Your task to perform on an android device: Open wifi settings Image 0: 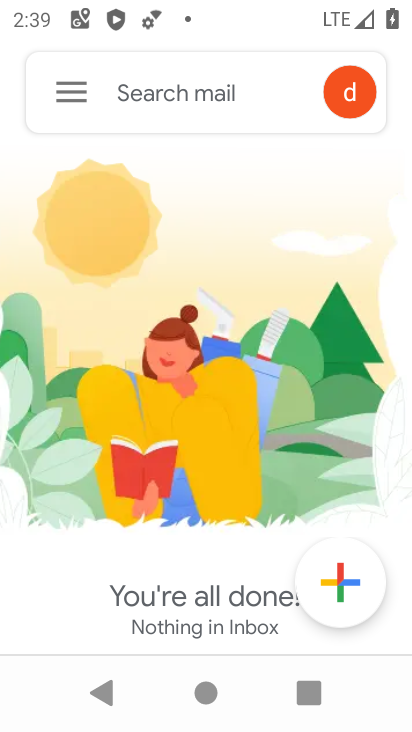
Step 0: press home button
Your task to perform on an android device: Open wifi settings Image 1: 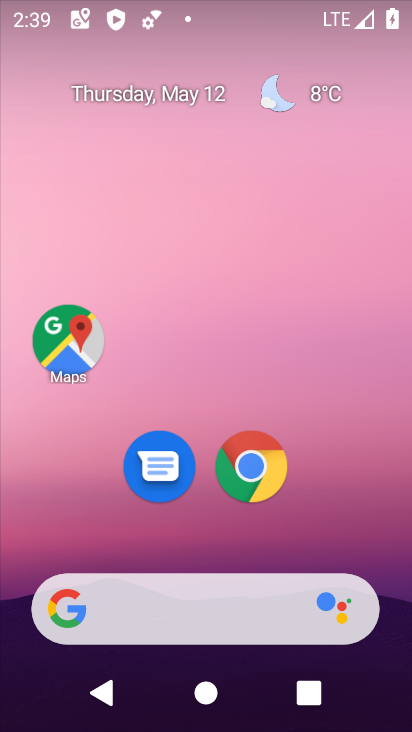
Step 1: drag from (306, 476) to (160, 109)
Your task to perform on an android device: Open wifi settings Image 2: 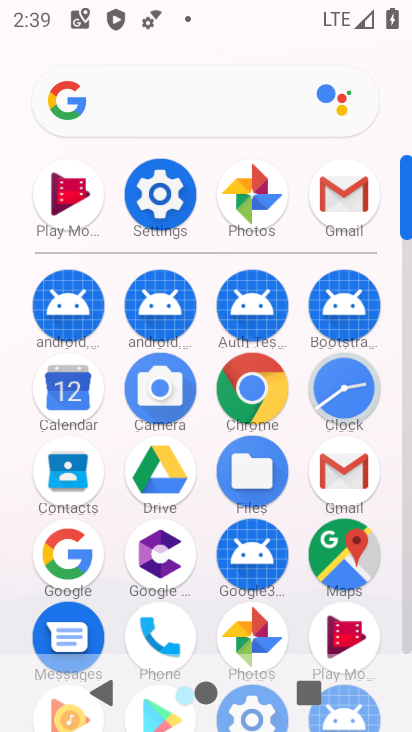
Step 2: click (154, 199)
Your task to perform on an android device: Open wifi settings Image 3: 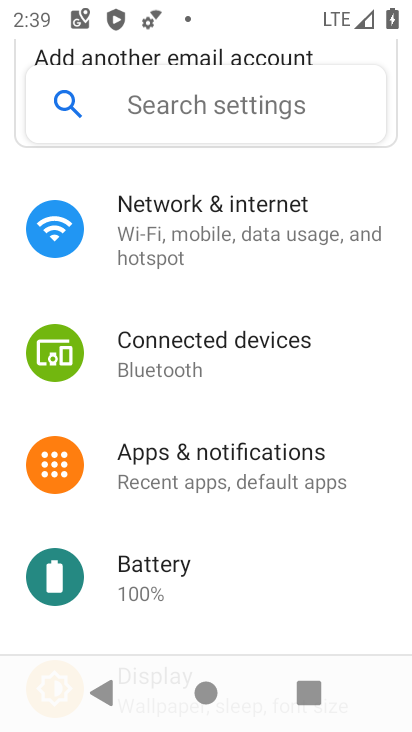
Step 3: click (151, 220)
Your task to perform on an android device: Open wifi settings Image 4: 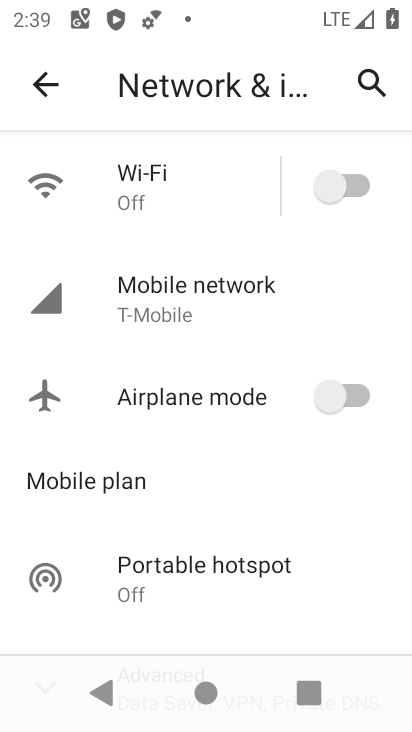
Step 4: click (142, 200)
Your task to perform on an android device: Open wifi settings Image 5: 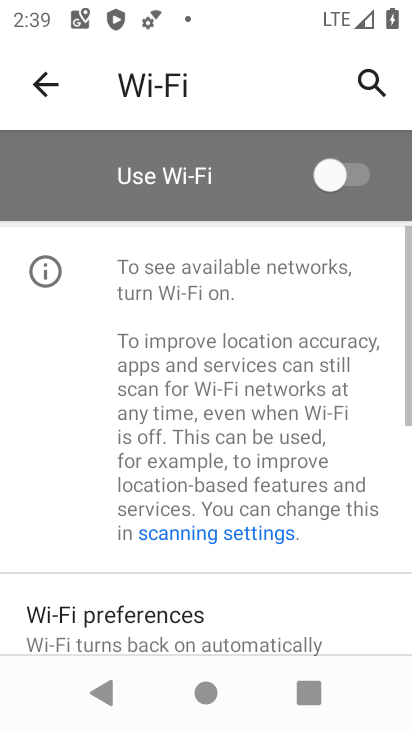
Step 5: task complete